Your task to perform on an android device: empty trash in google photos Image 0: 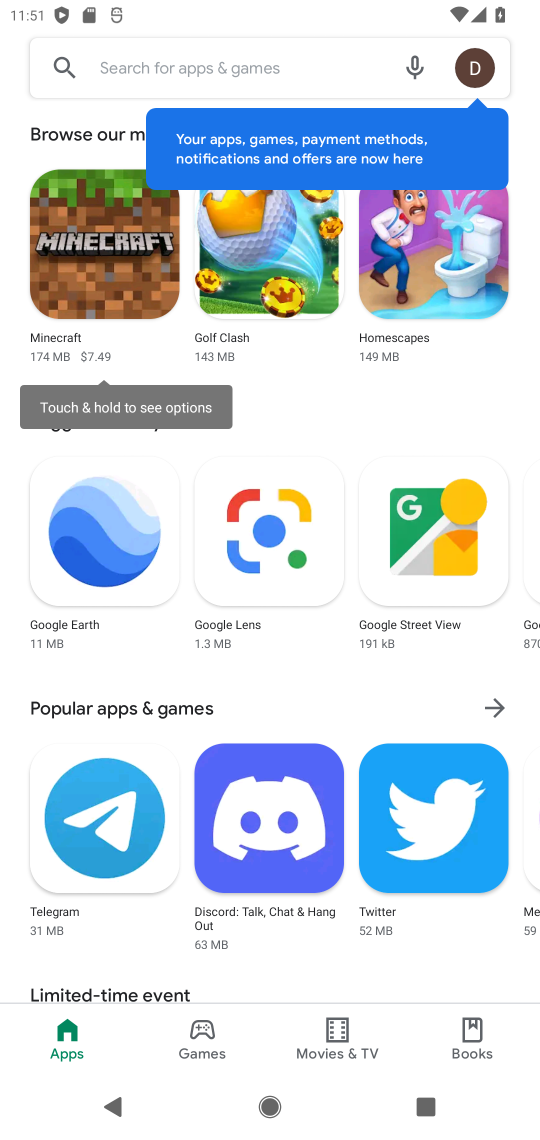
Step 0: press home button
Your task to perform on an android device: empty trash in google photos Image 1: 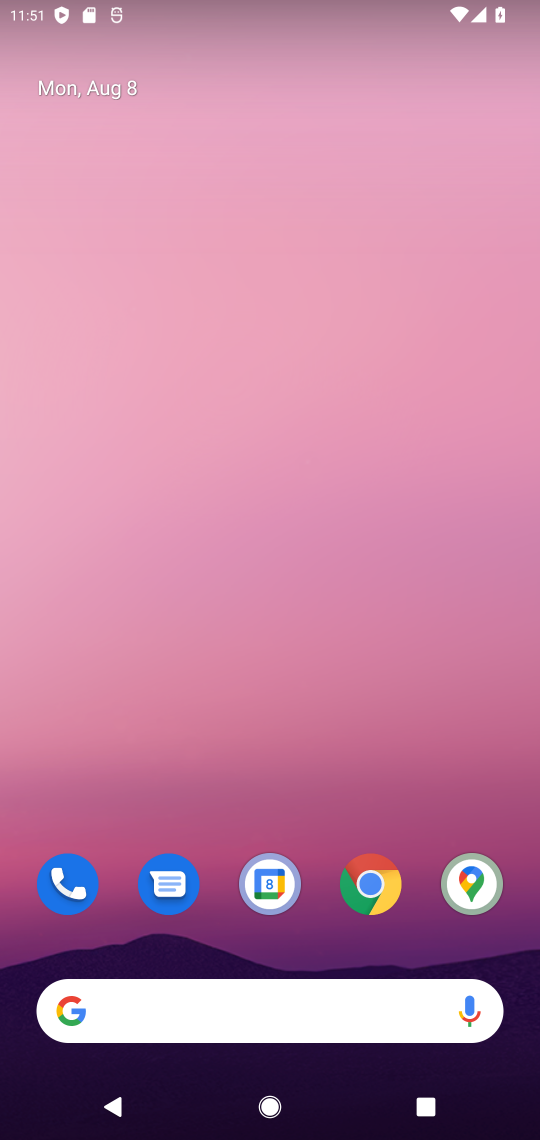
Step 1: drag from (165, 1070) to (264, 213)
Your task to perform on an android device: empty trash in google photos Image 2: 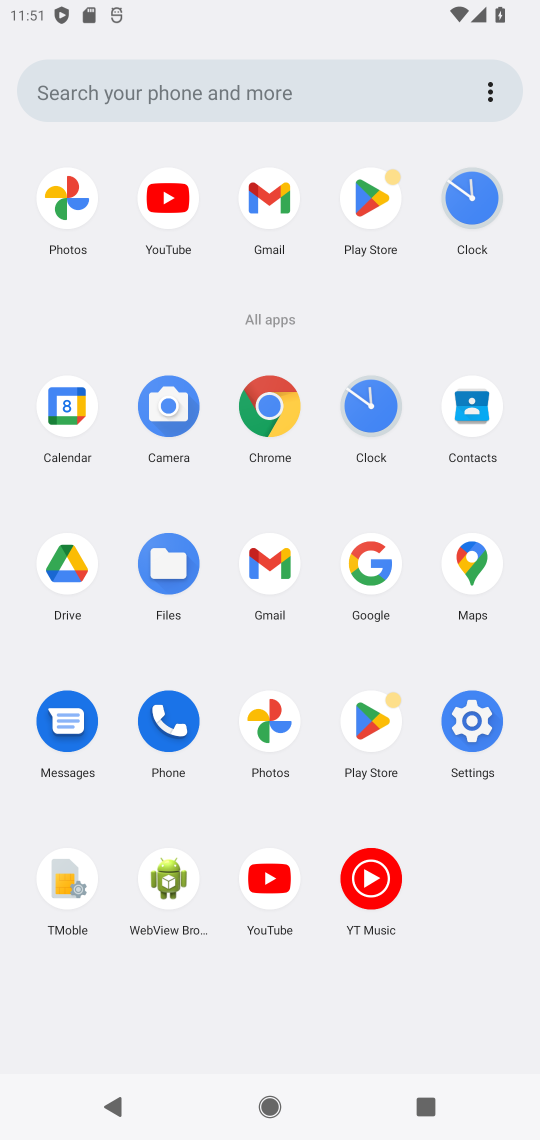
Step 2: click (64, 205)
Your task to perform on an android device: empty trash in google photos Image 3: 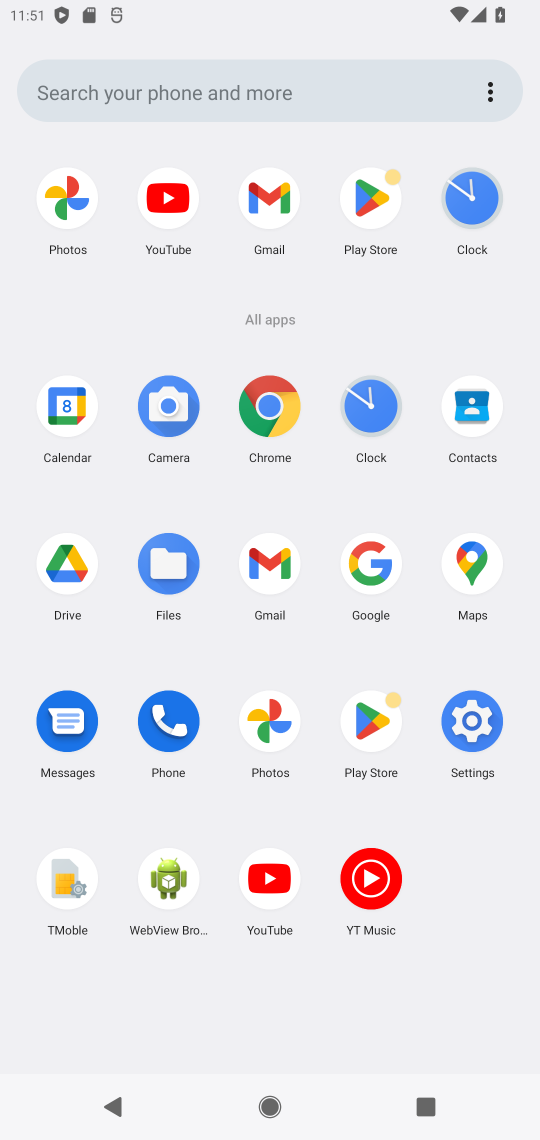
Step 3: click (64, 205)
Your task to perform on an android device: empty trash in google photos Image 4: 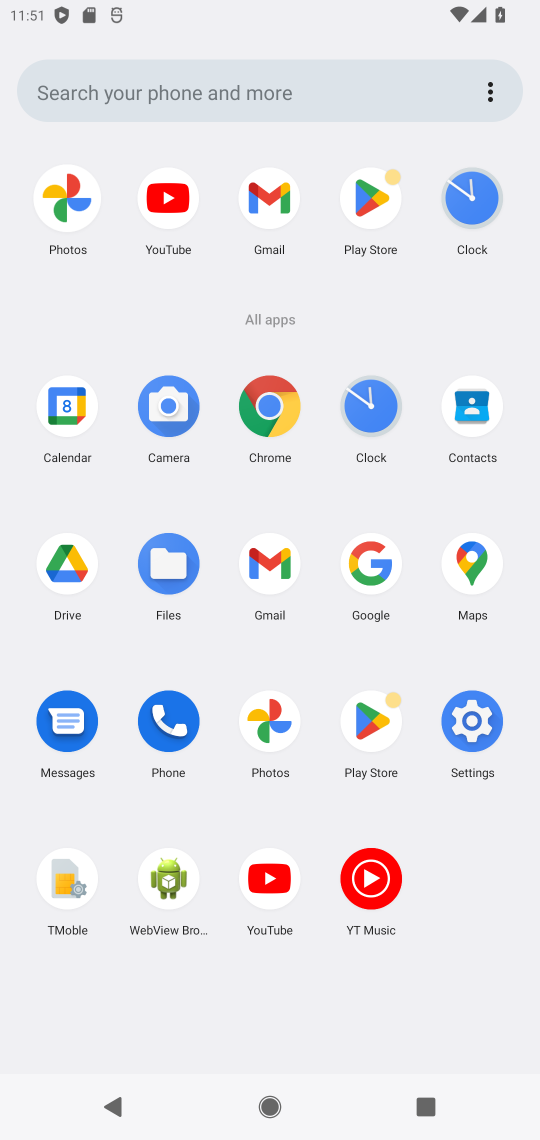
Step 4: click (64, 205)
Your task to perform on an android device: empty trash in google photos Image 5: 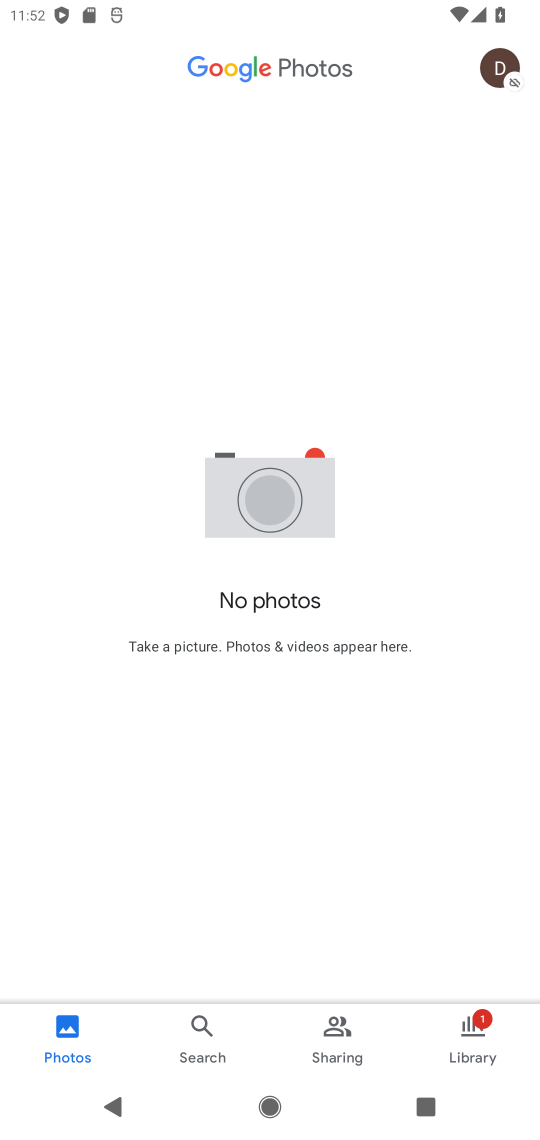
Step 5: click (483, 1045)
Your task to perform on an android device: empty trash in google photos Image 6: 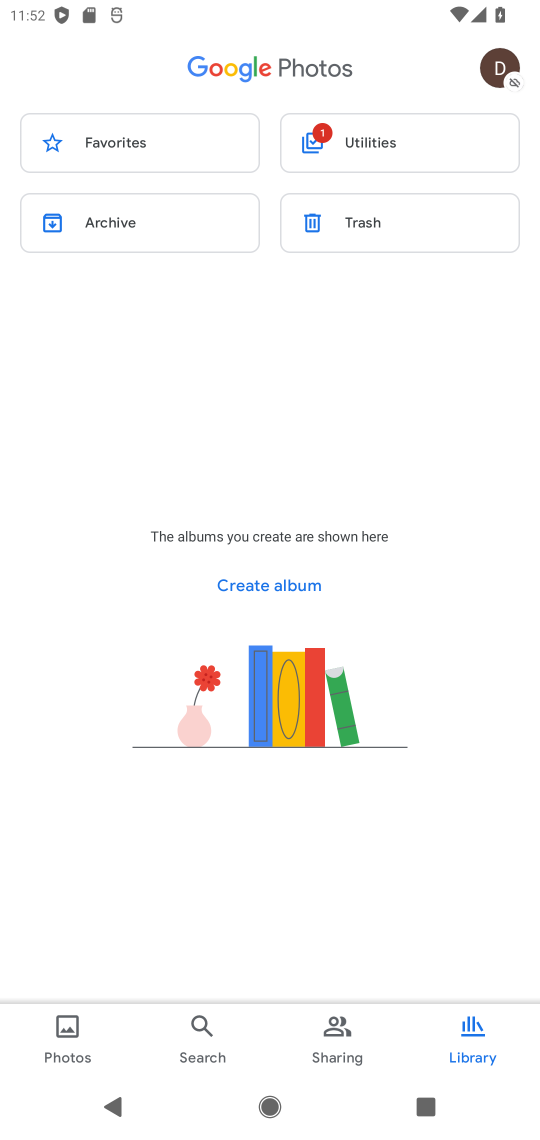
Step 6: click (334, 205)
Your task to perform on an android device: empty trash in google photos Image 7: 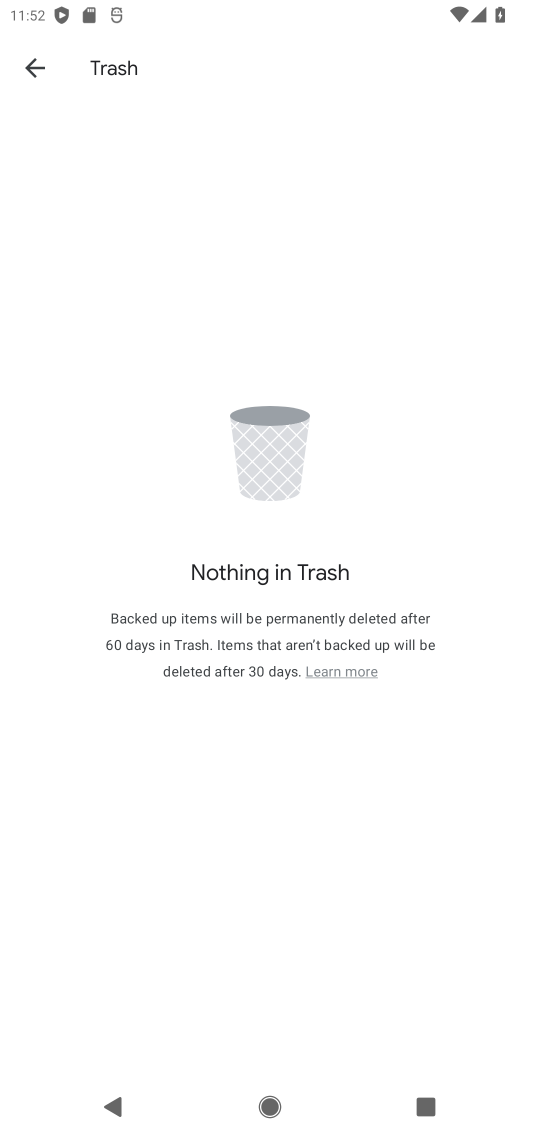
Step 7: task complete